Your task to perform on an android device: toggle priority inbox in the gmail app Image 0: 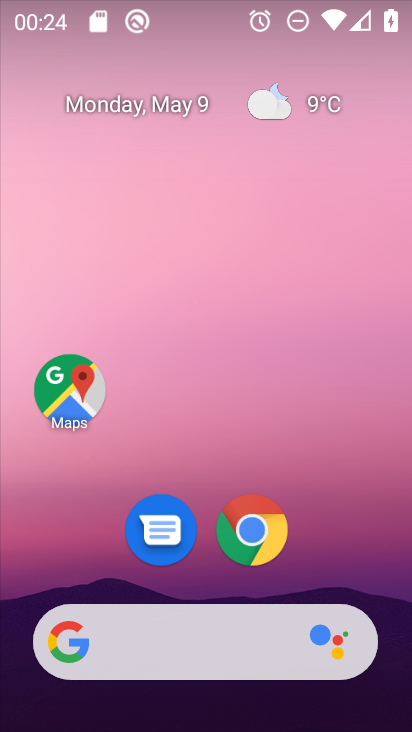
Step 0: drag from (195, 586) to (272, 109)
Your task to perform on an android device: toggle priority inbox in the gmail app Image 1: 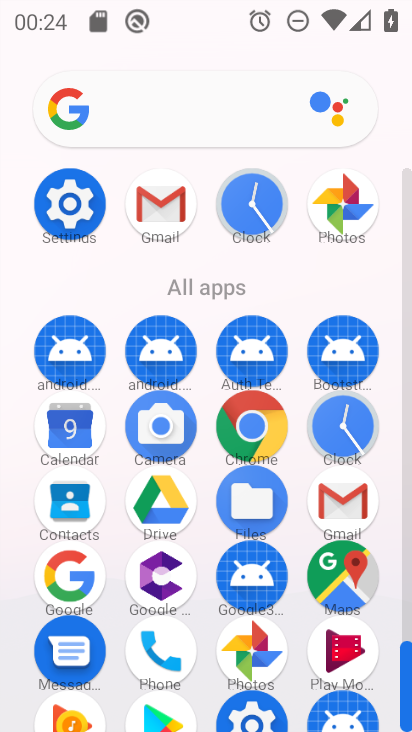
Step 1: click (170, 206)
Your task to perform on an android device: toggle priority inbox in the gmail app Image 2: 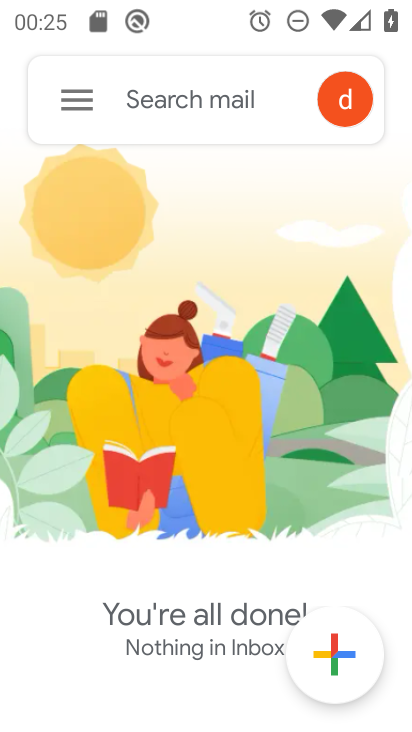
Step 2: click (71, 109)
Your task to perform on an android device: toggle priority inbox in the gmail app Image 3: 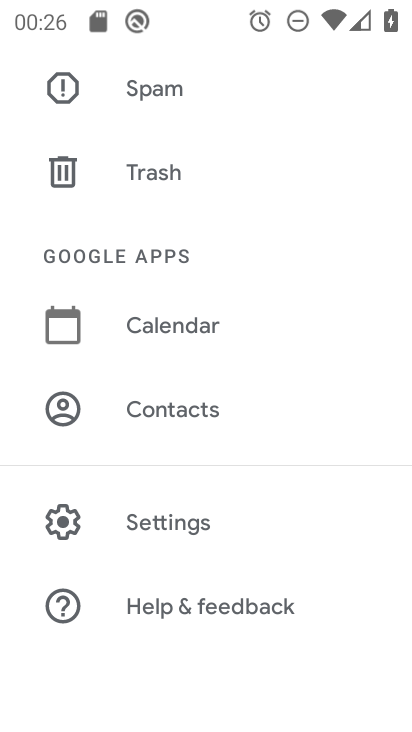
Step 3: click (232, 525)
Your task to perform on an android device: toggle priority inbox in the gmail app Image 4: 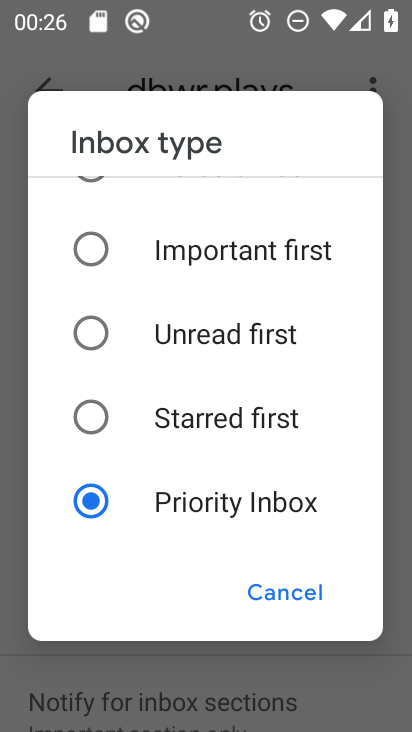
Step 4: click (233, 438)
Your task to perform on an android device: toggle priority inbox in the gmail app Image 5: 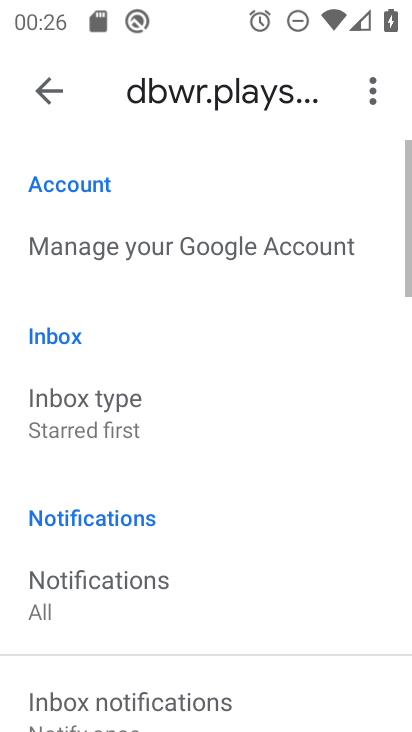
Step 5: task complete